Your task to perform on an android device: Check the settings for the Amazon Music app Image 0: 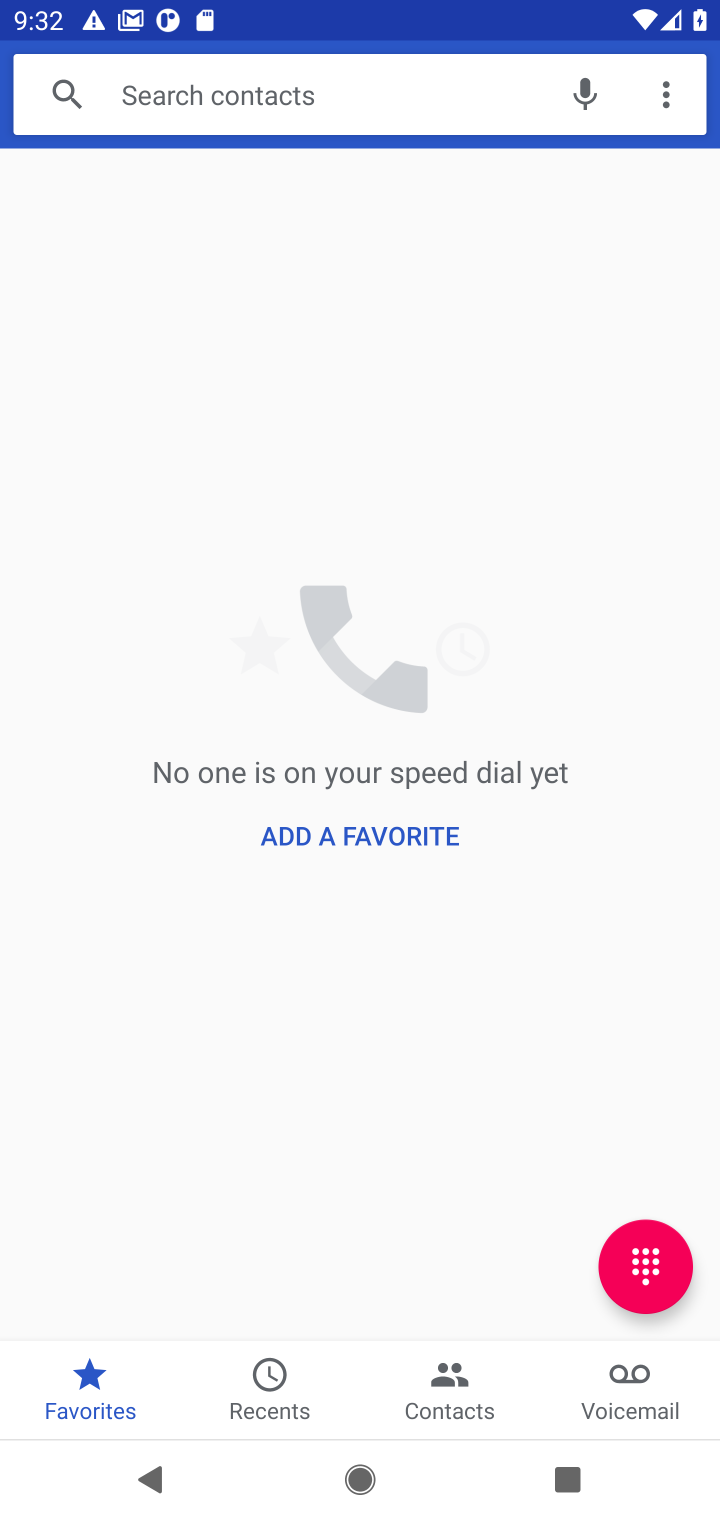
Step 0: press home button
Your task to perform on an android device: Check the settings for the Amazon Music app Image 1: 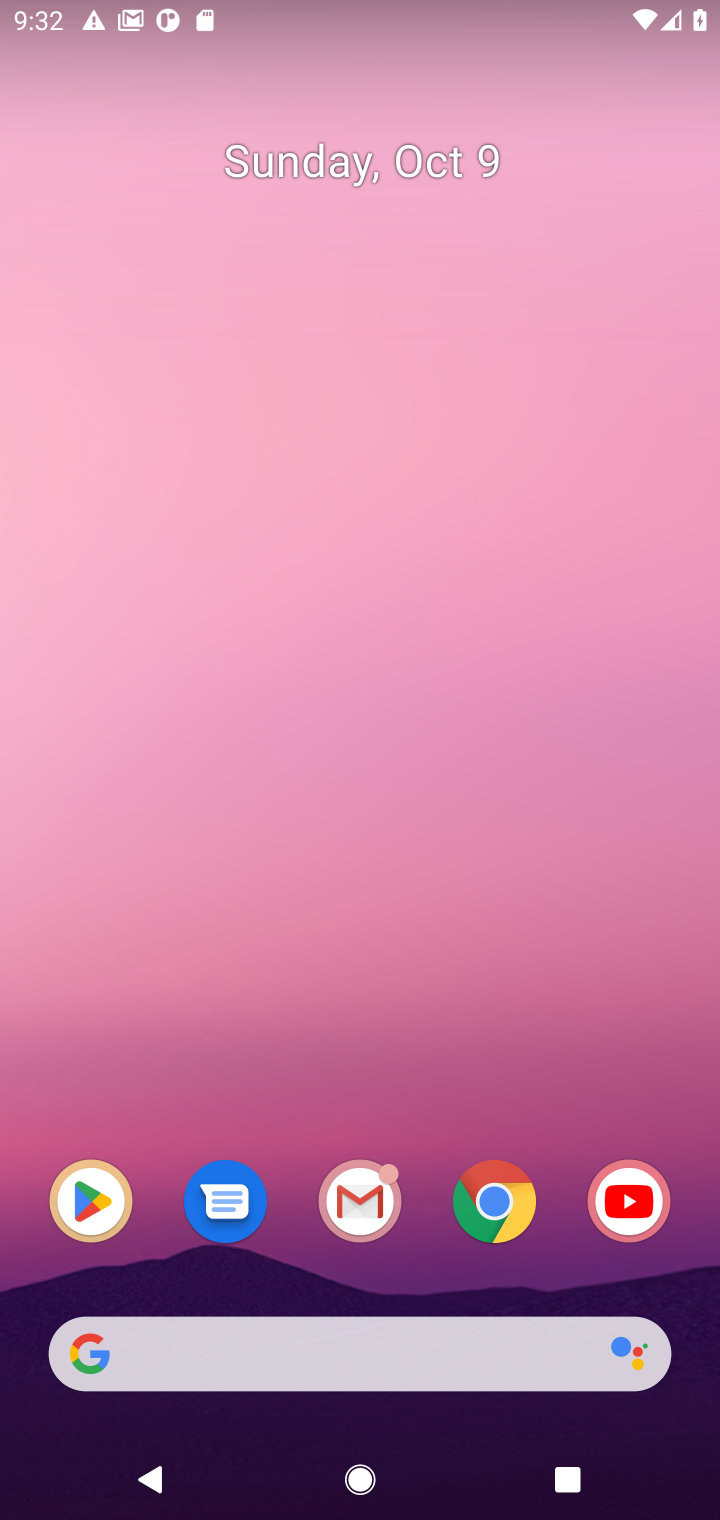
Step 1: drag from (400, 607) to (413, 365)
Your task to perform on an android device: Check the settings for the Amazon Music app Image 2: 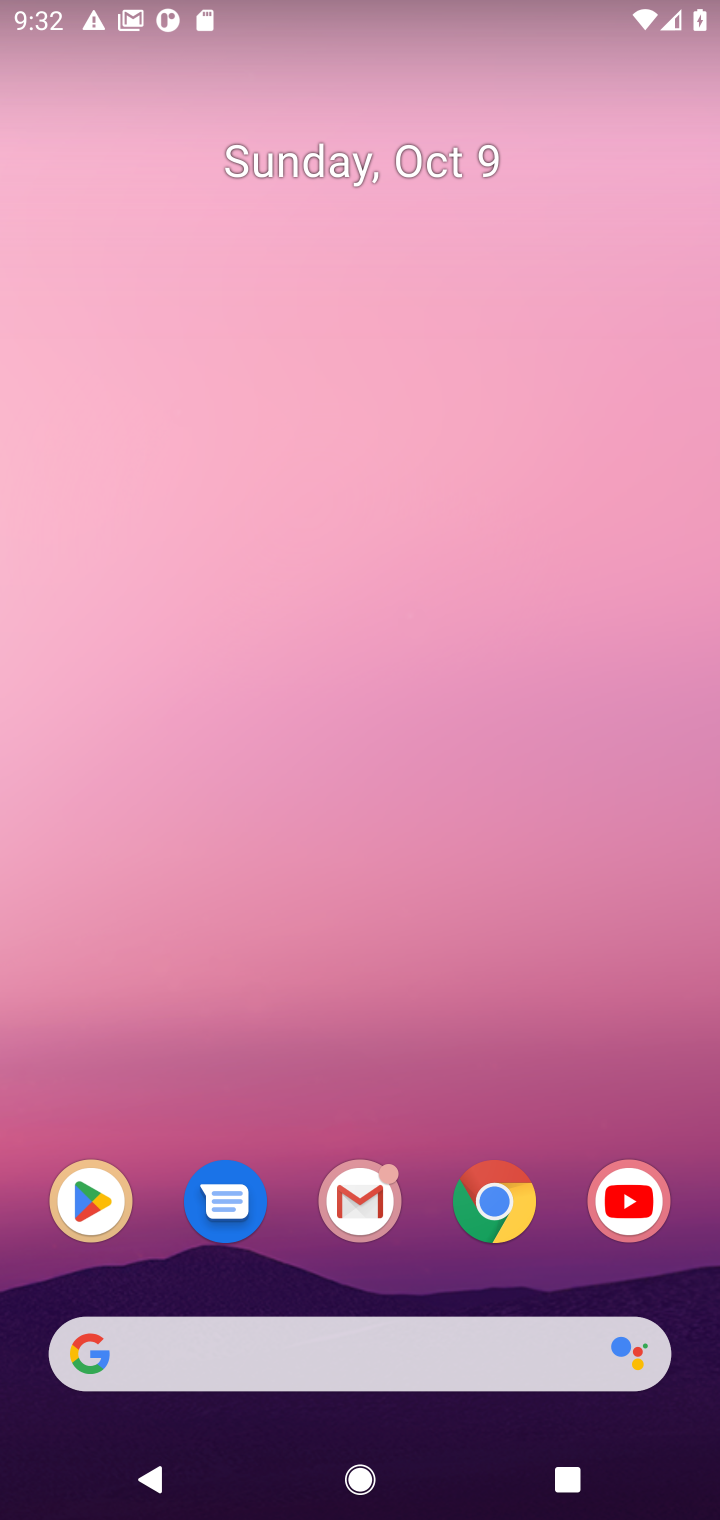
Step 2: drag from (357, 772) to (378, 153)
Your task to perform on an android device: Check the settings for the Amazon Music app Image 3: 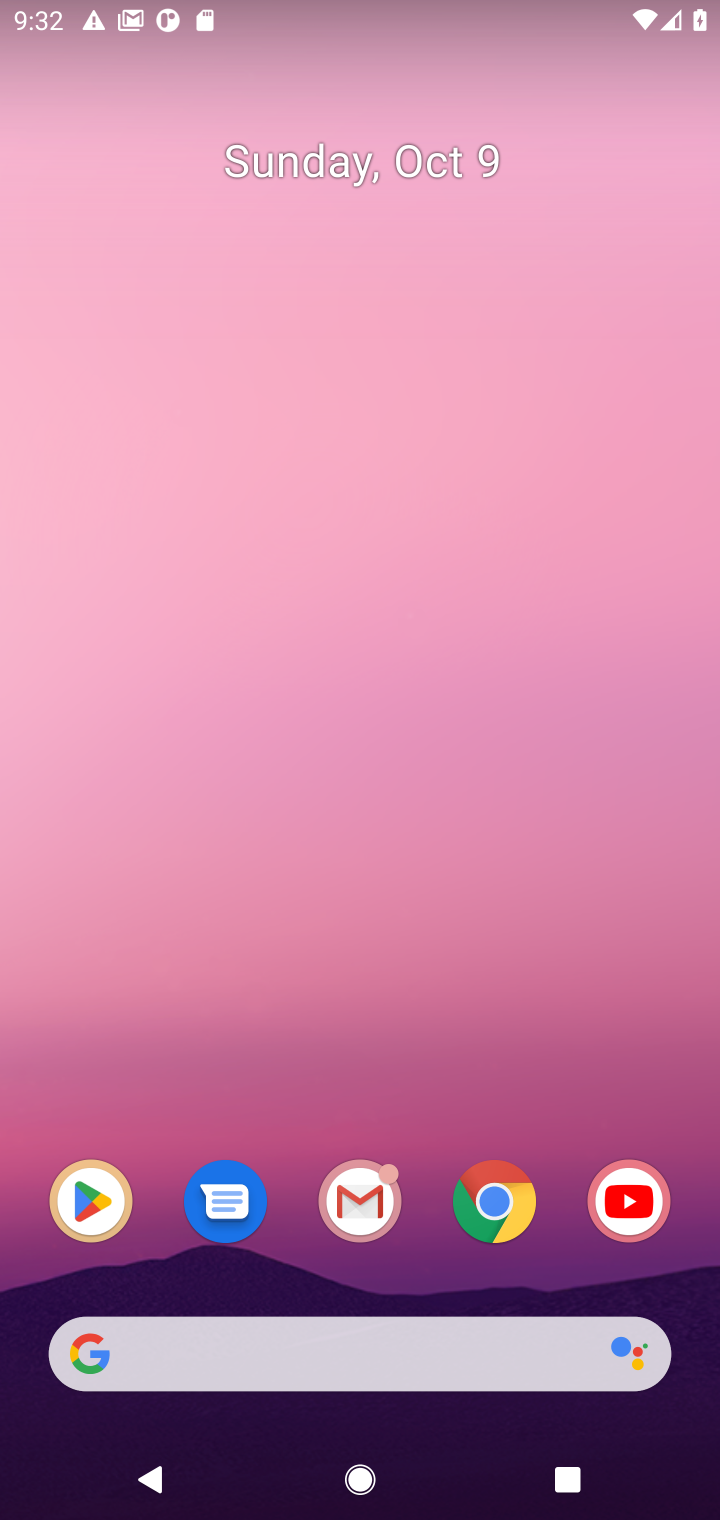
Step 3: drag from (453, 842) to (512, 237)
Your task to perform on an android device: Check the settings for the Amazon Music app Image 4: 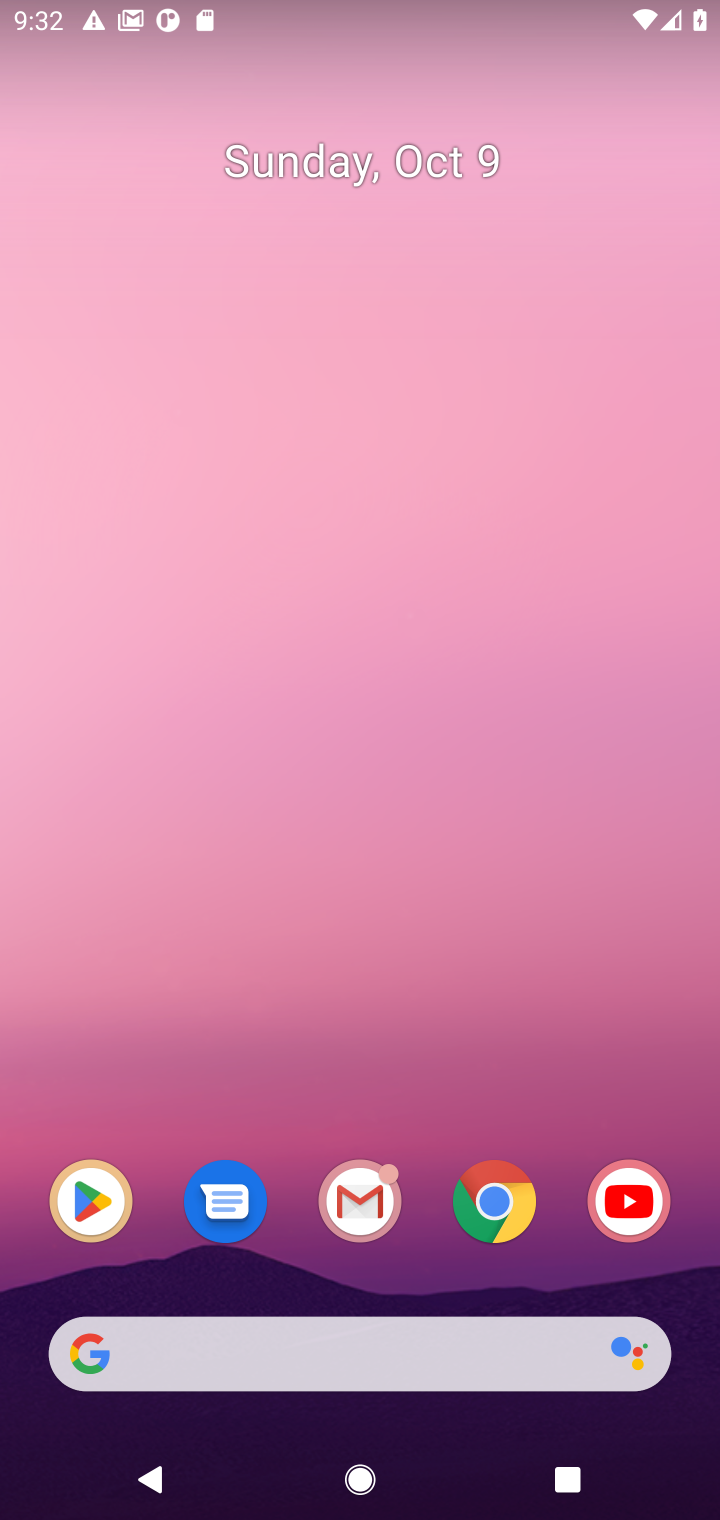
Step 4: drag from (409, 1448) to (310, 60)
Your task to perform on an android device: Check the settings for the Amazon Music app Image 5: 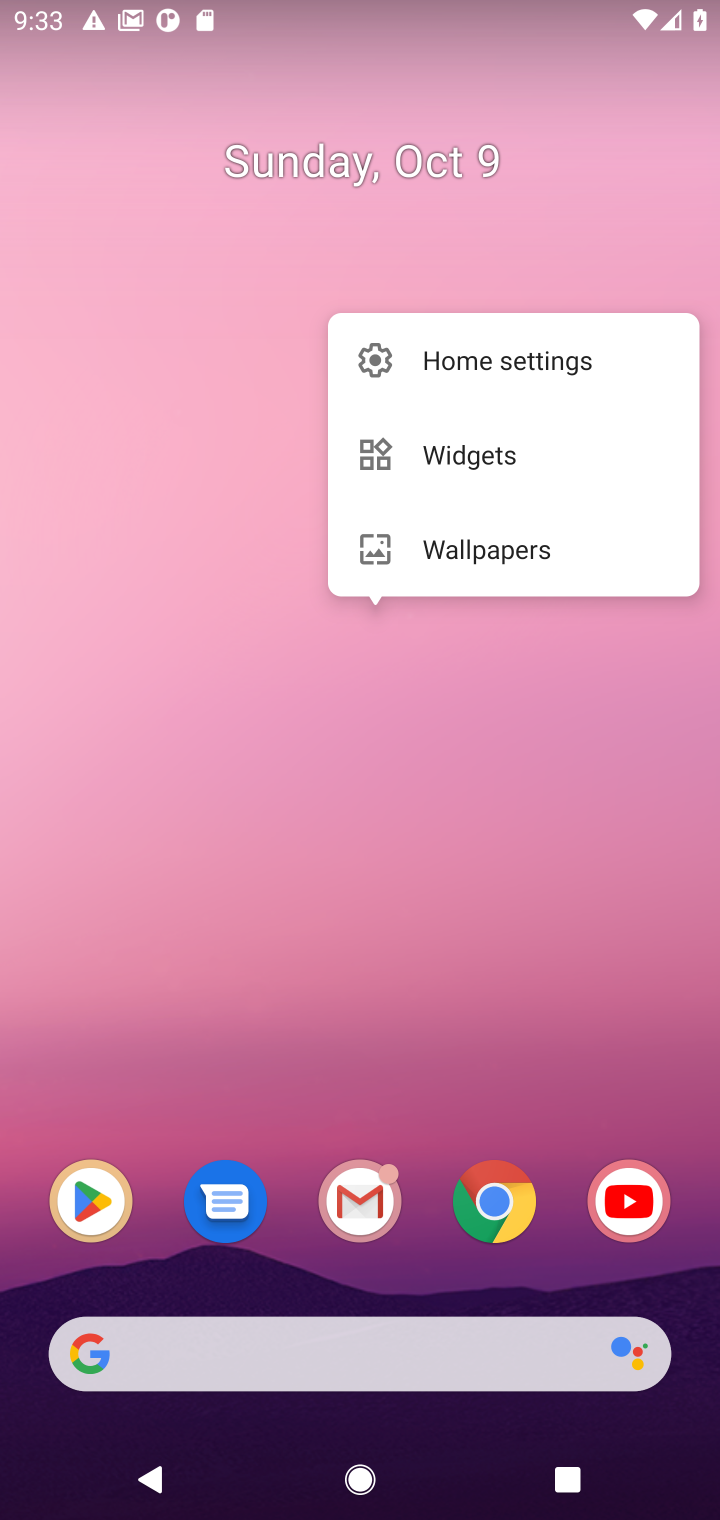
Step 5: click (339, 1393)
Your task to perform on an android device: Check the settings for the Amazon Music app Image 6: 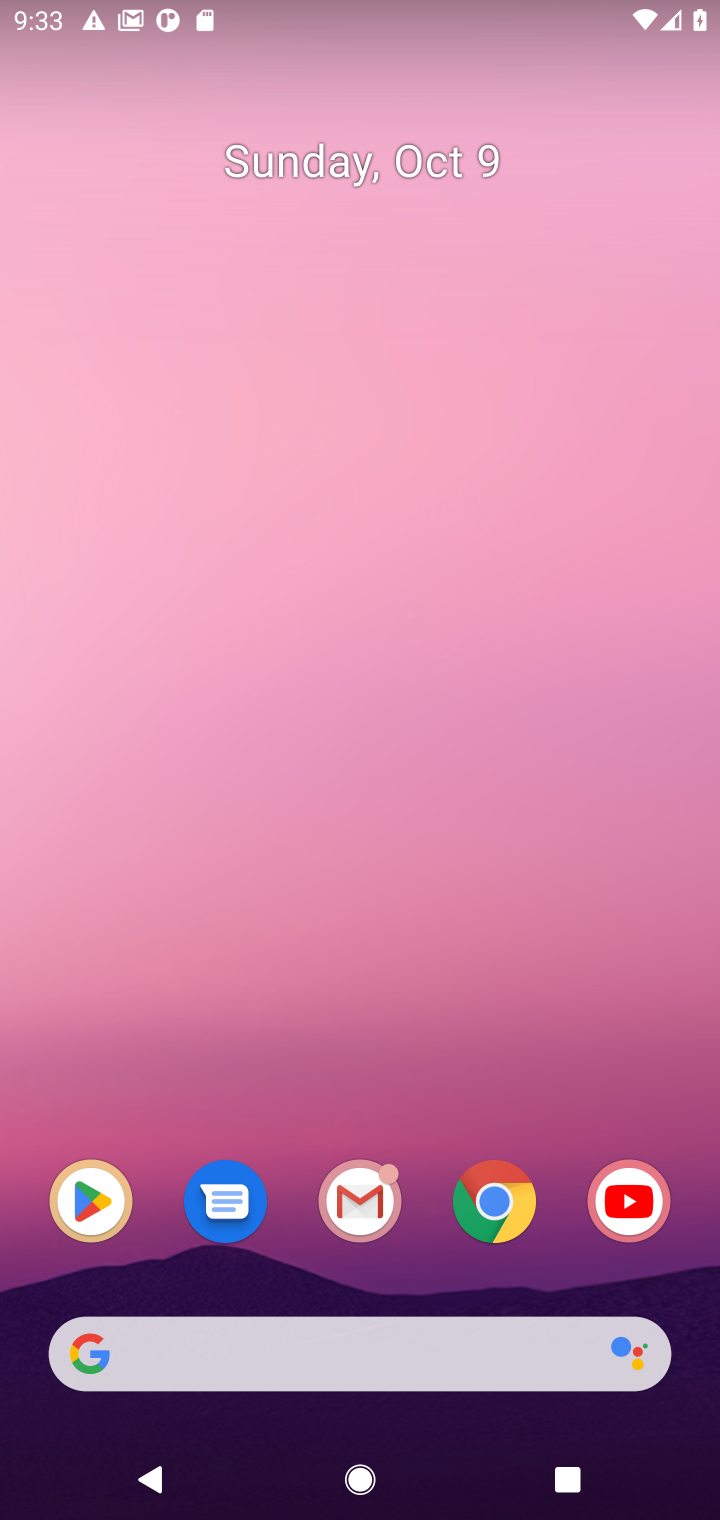
Step 6: drag from (406, 1382) to (451, 16)
Your task to perform on an android device: Check the settings for the Amazon Music app Image 7: 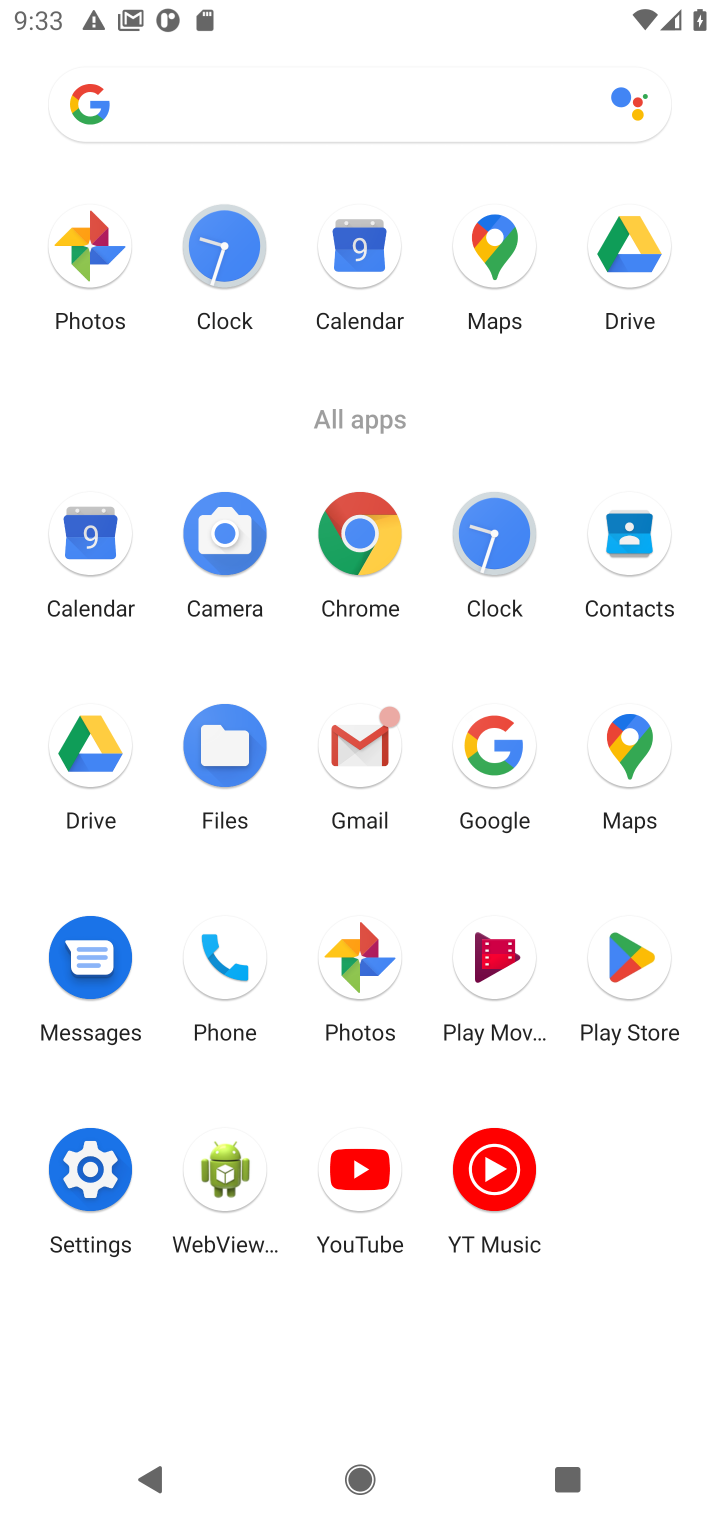
Step 7: click (625, 974)
Your task to perform on an android device: Check the settings for the Amazon Music app Image 8: 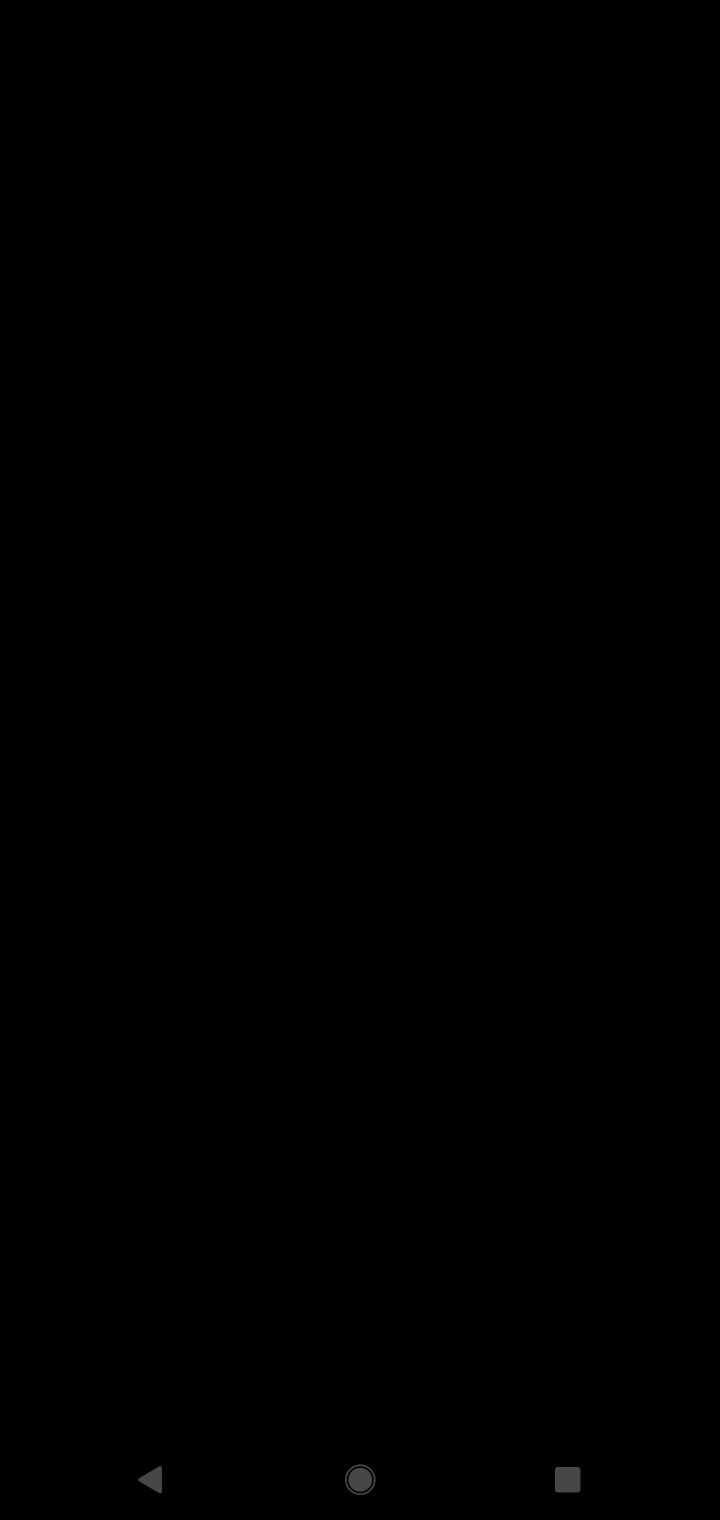
Step 8: press home button
Your task to perform on an android device: Check the settings for the Amazon Music app Image 9: 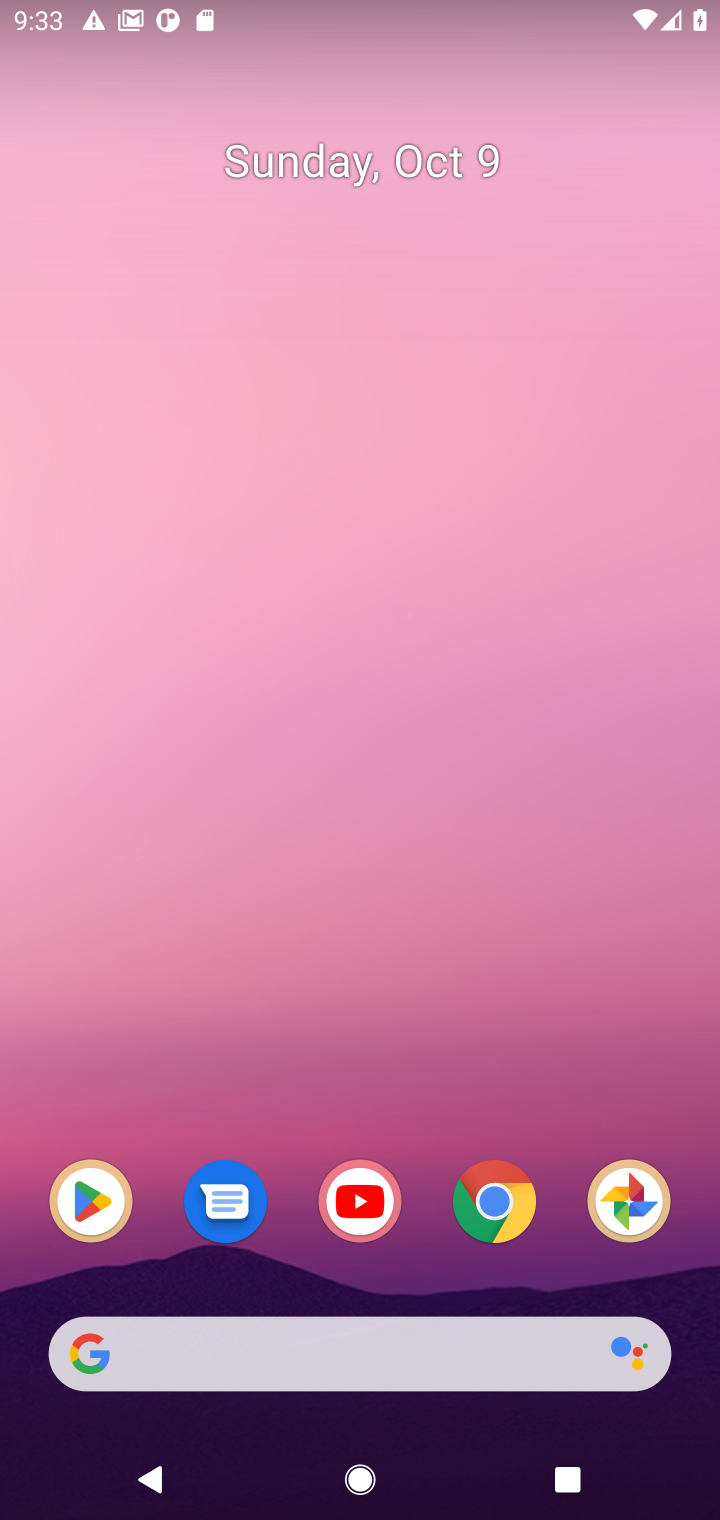
Step 9: click (91, 1192)
Your task to perform on an android device: Check the settings for the Amazon Music app Image 10: 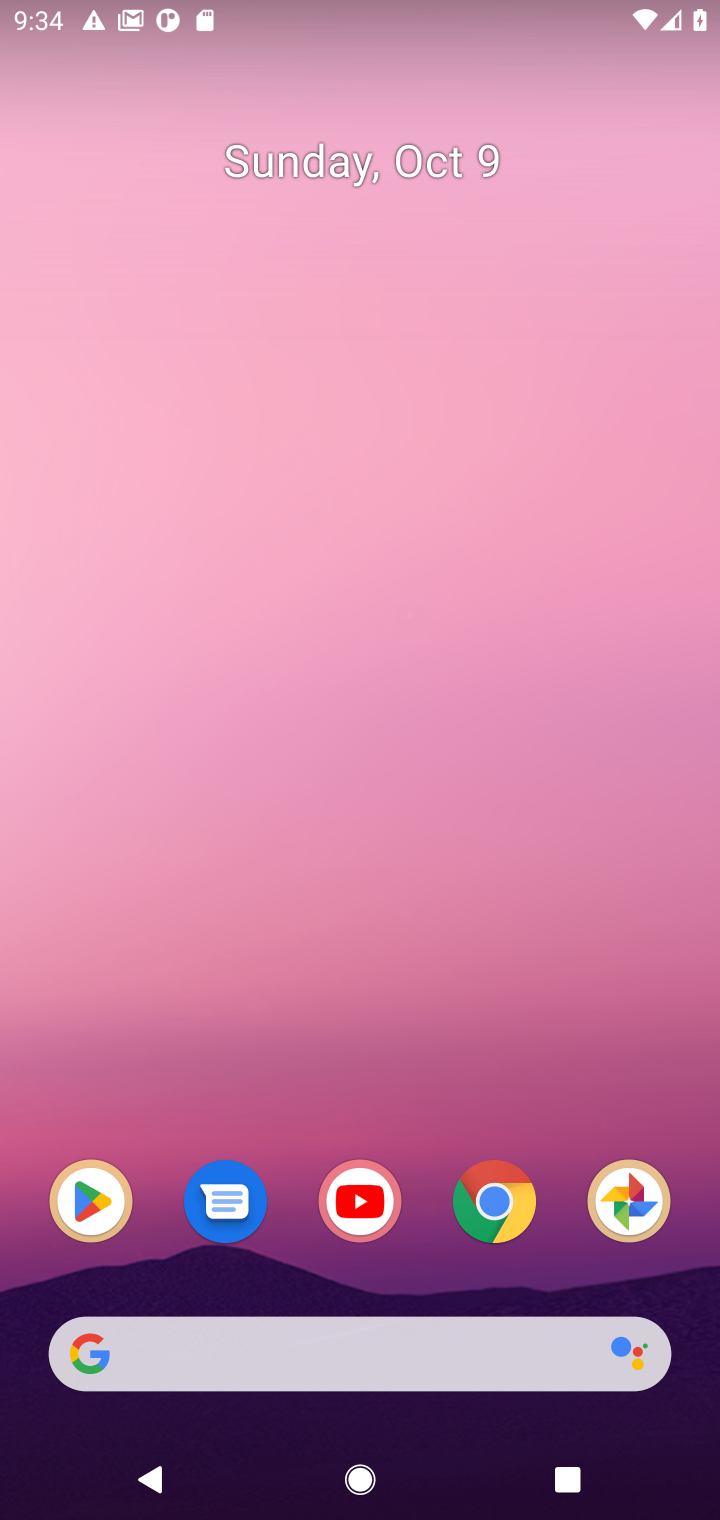
Step 10: click (93, 1199)
Your task to perform on an android device: Check the settings for the Amazon Music app Image 11: 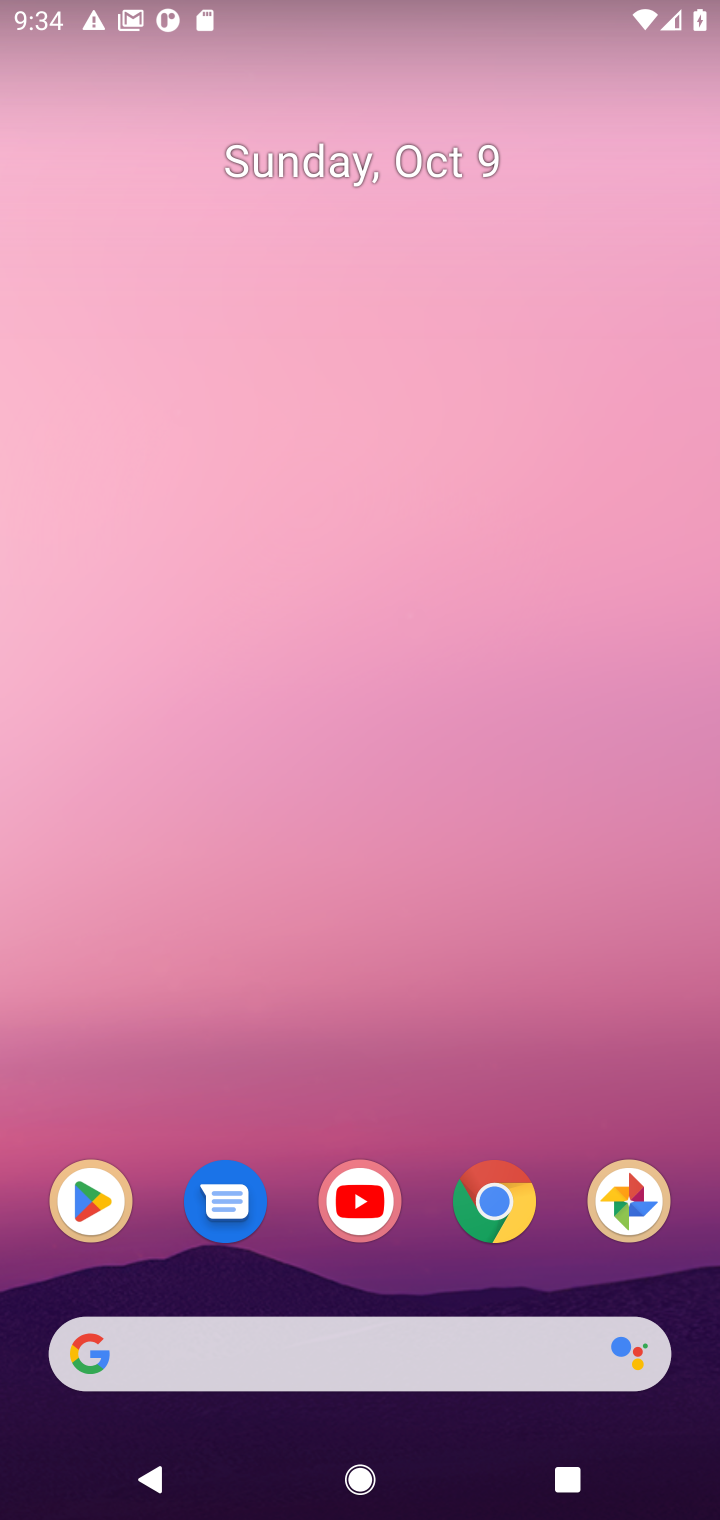
Step 11: click (75, 1224)
Your task to perform on an android device: Check the settings for the Amazon Music app Image 12: 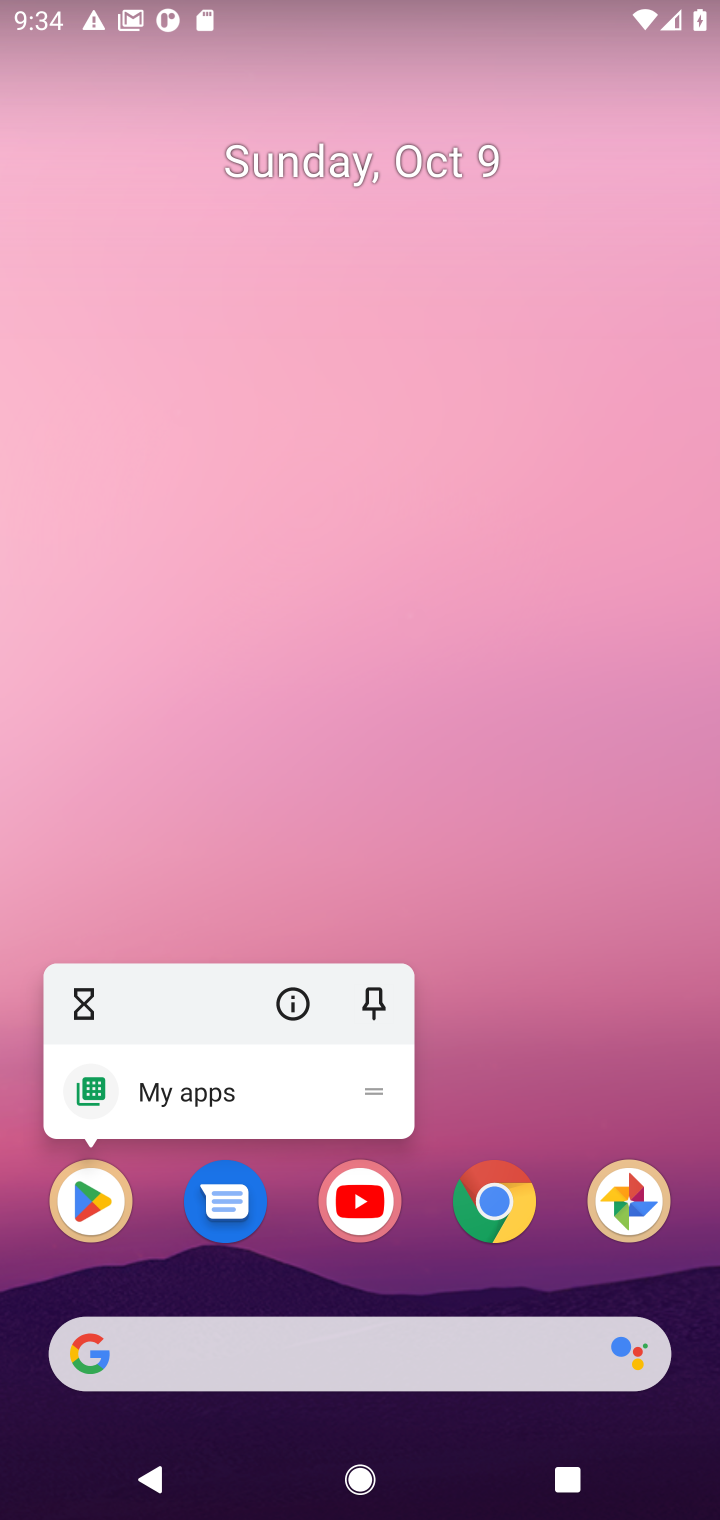
Step 12: click (75, 1224)
Your task to perform on an android device: Check the settings for the Amazon Music app Image 13: 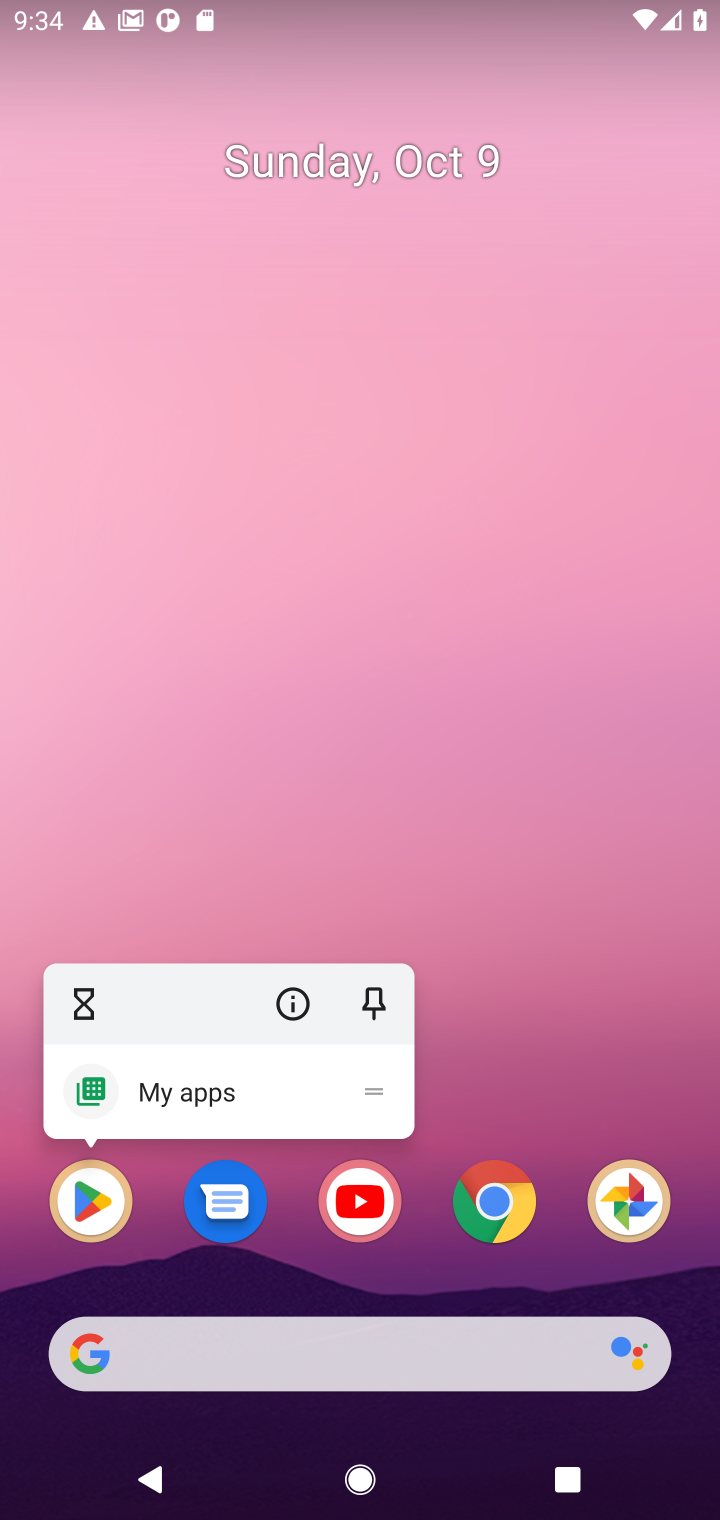
Step 13: click (75, 1224)
Your task to perform on an android device: Check the settings for the Amazon Music app Image 14: 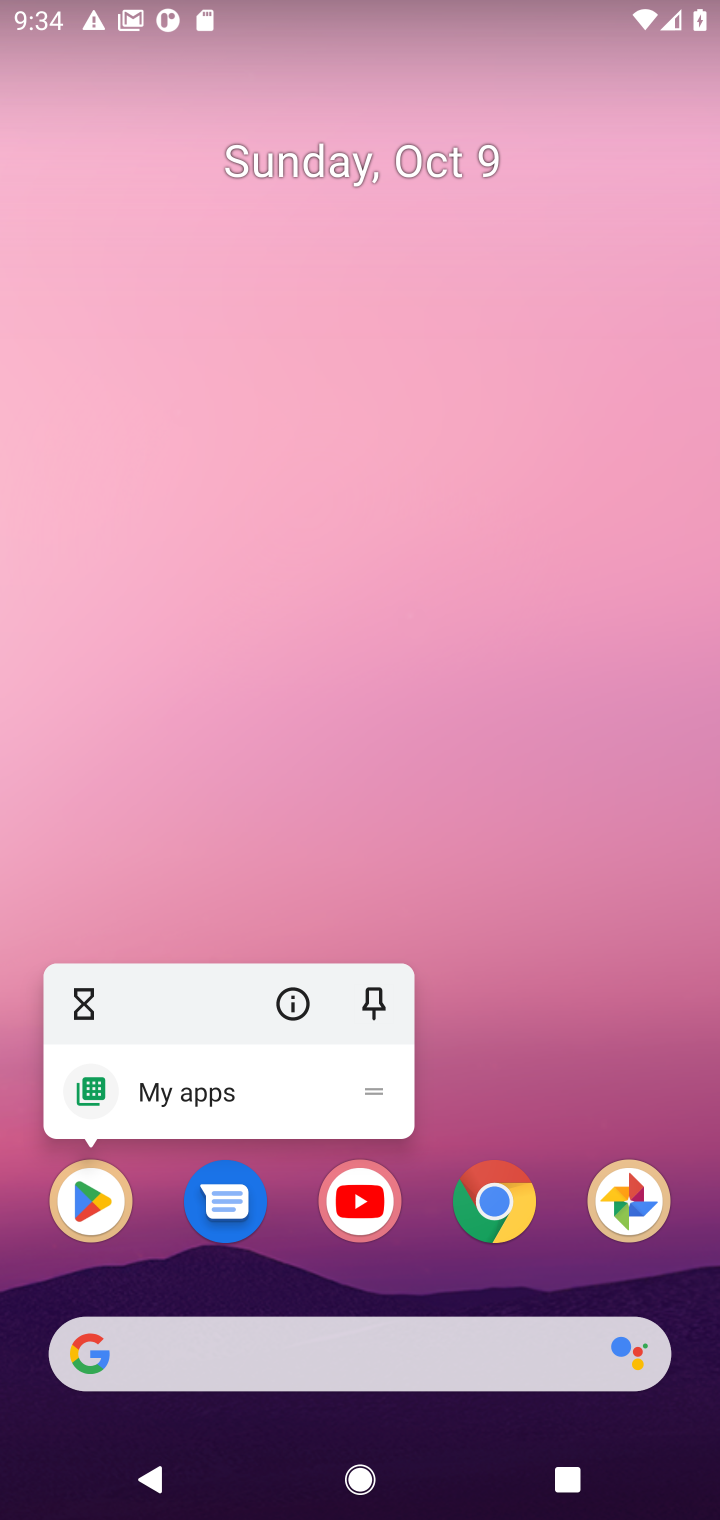
Step 14: task complete